Your task to perform on an android device: Open notification settings Image 0: 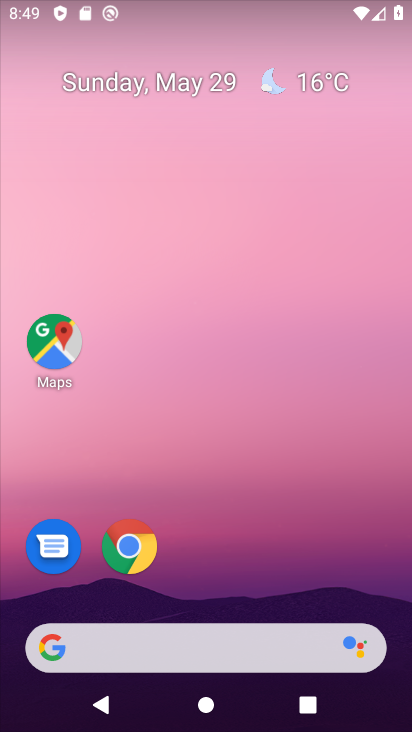
Step 0: drag from (326, 623) to (311, 85)
Your task to perform on an android device: Open notification settings Image 1: 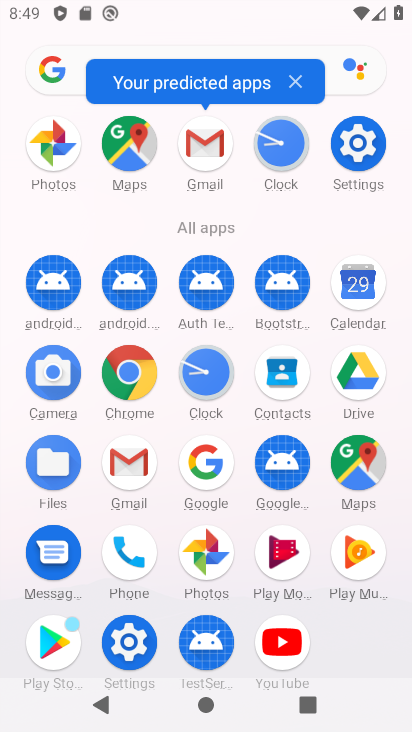
Step 1: click (112, 635)
Your task to perform on an android device: Open notification settings Image 2: 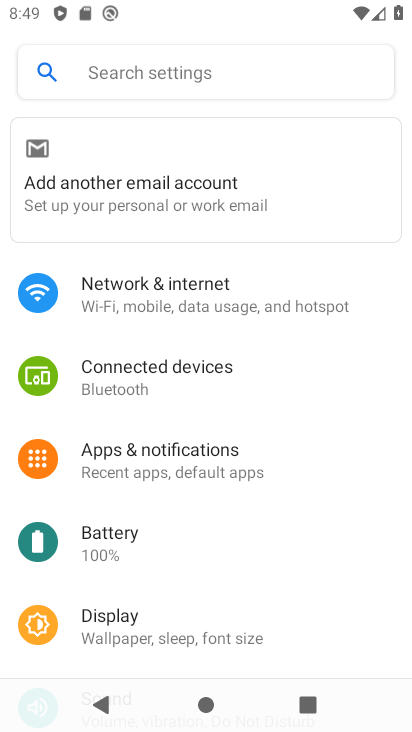
Step 2: click (181, 465)
Your task to perform on an android device: Open notification settings Image 3: 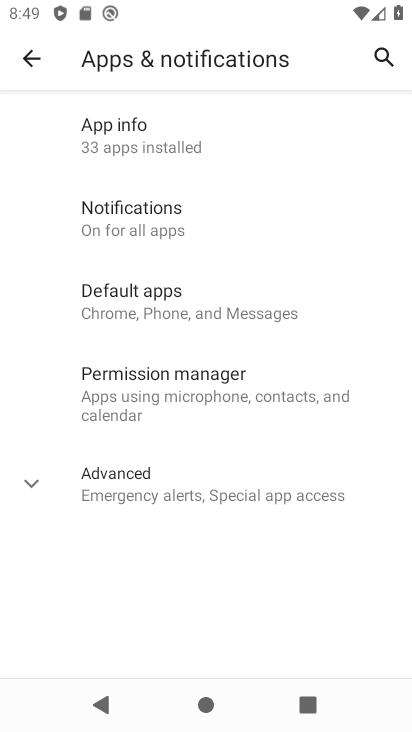
Step 3: click (322, 217)
Your task to perform on an android device: Open notification settings Image 4: 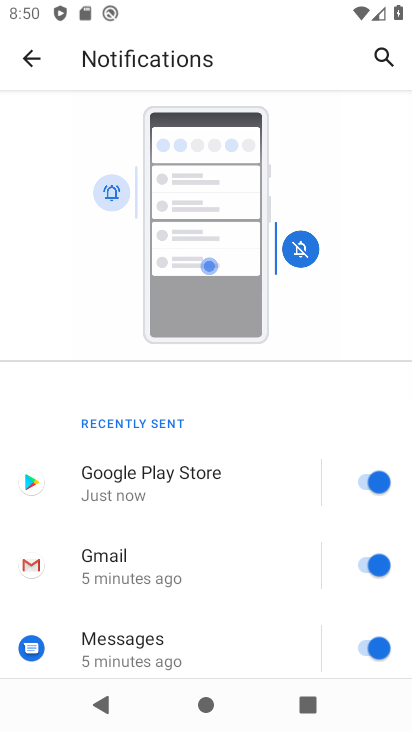
Step 4: task complete